Your task to perform on an android device: turn on notifications settings in the gmail app Image 0: 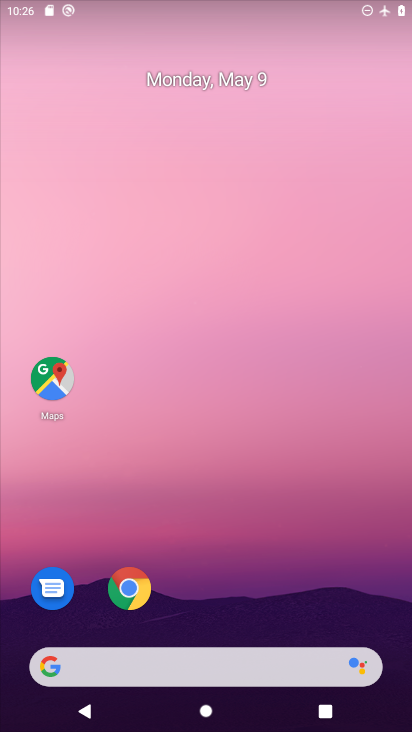
Step 0: drag from (281, 614) to (228, 180)
Your task to perform on an android device: turn on notifications settings in the gmail app Image 1: 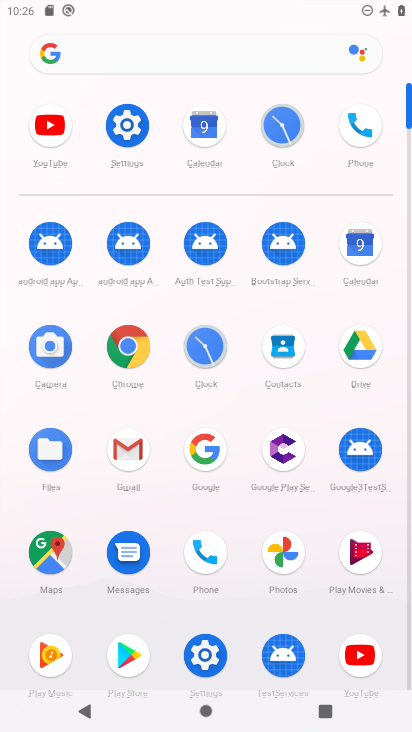
Step 1: click (118, 460)
Your task to perform on an android device: turn on notifications settings in the gmail app Image 2: 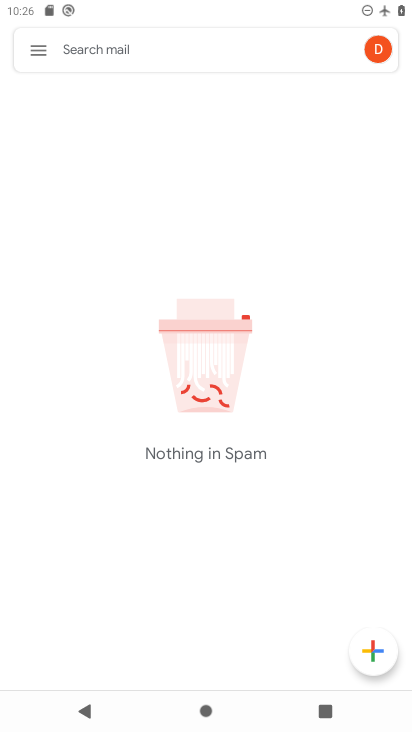
Step 2: click (47, 52)
Your task to perform on an android device: turn on notifications settings in the gmail app Image 3: 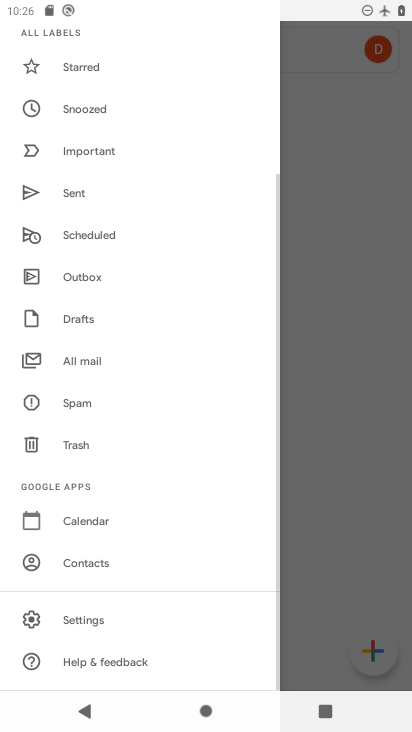
Step 3: click (52, 609)
Your task to perform on an android device: turn on notifications settings in the gmail app Image 4: 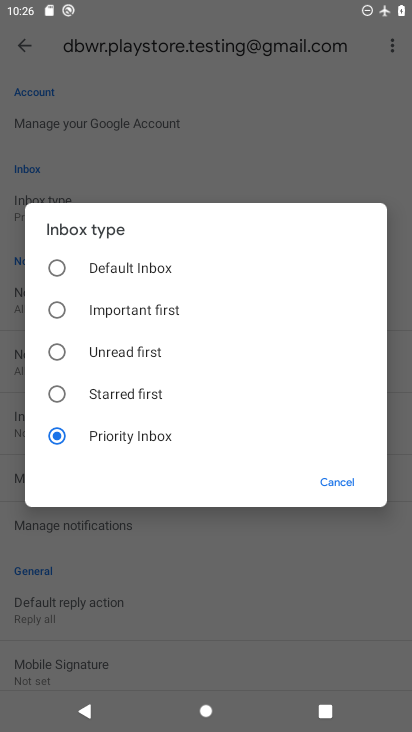
Step 4: click (348, 476)
Your task to perform on an android device: turn on notifications settings in the gmail app Image 5: 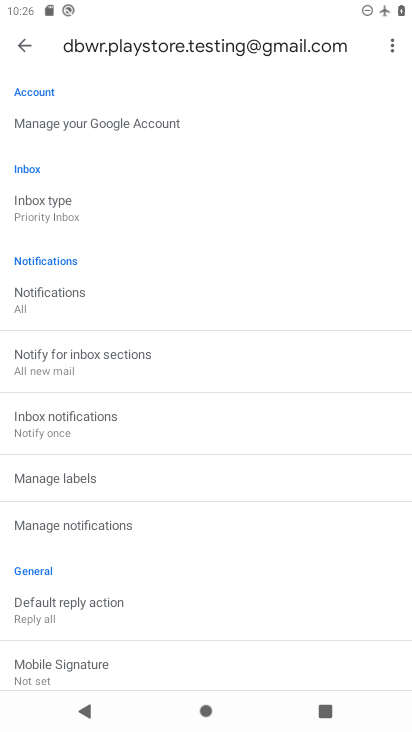
Step 5: drag from (215, 595) to (221, 450)
Your task to perform on an android device: turn on notifications settings in the gmail app Image 6: 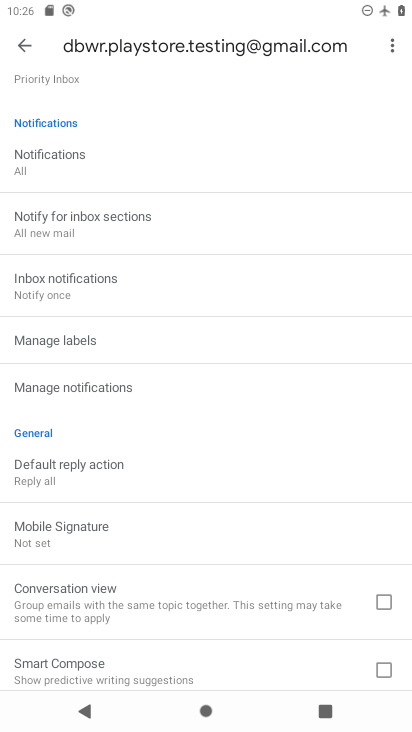
Step 6: click (26, 40)
Your task to perform on an android device: turn on notifications settings in the gmail app Image 7: 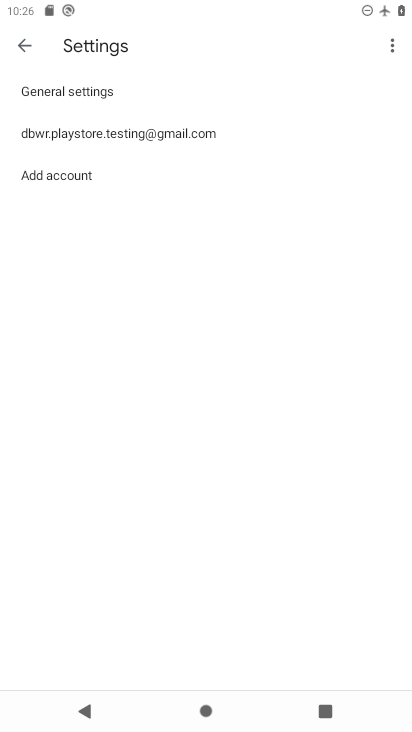
Step 7: click (90, 104)
Your task to perform on an android device: turn on notifications settings in the gmail app Image 8: 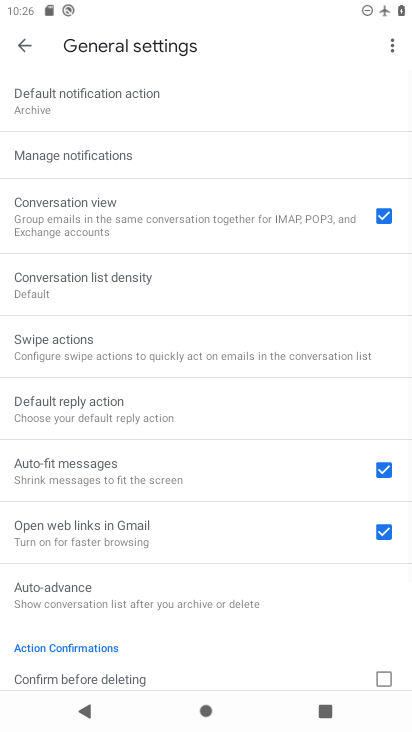
Step 8: click (121, 173)
Your task to perform on an android device: turn on notifications settings in the gmail app Image 9: 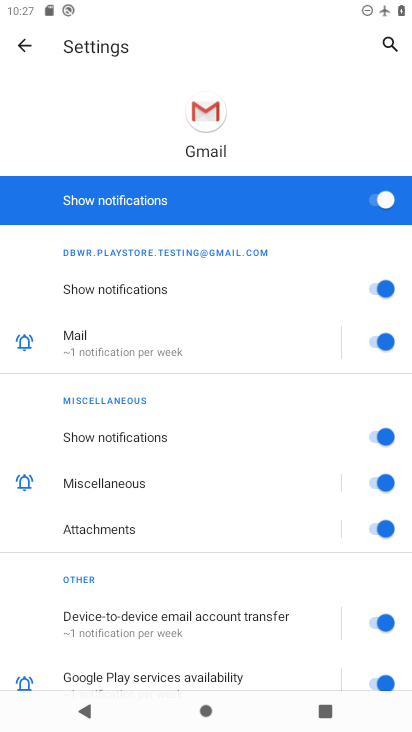
Step 9: task complete